Your task to perform on an android device: Open display settings Image 0: 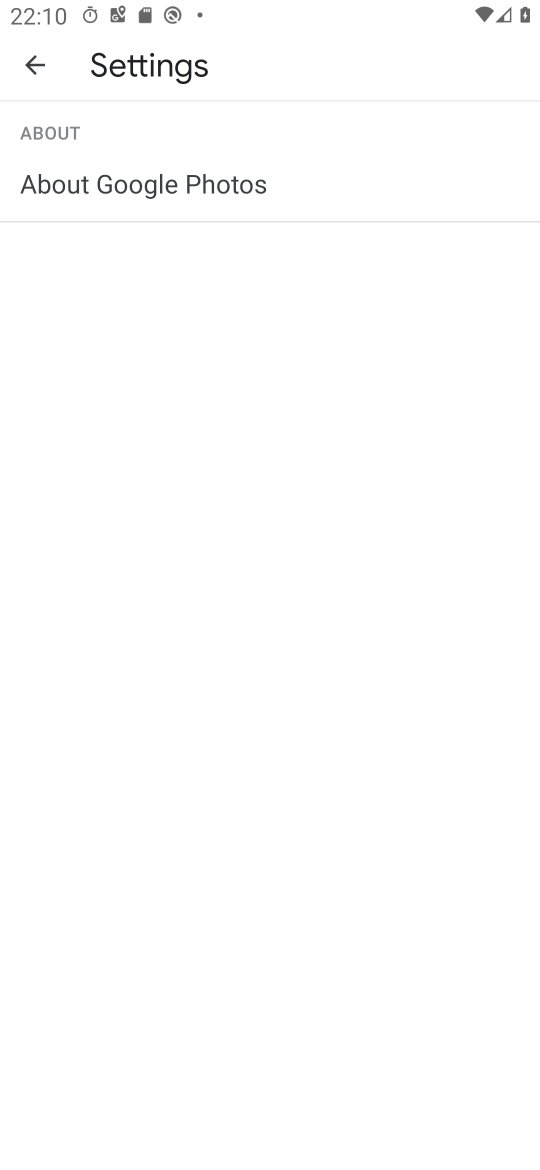
Step 0: press home button
Your task to perform on an android device: Open display settings Image 1: 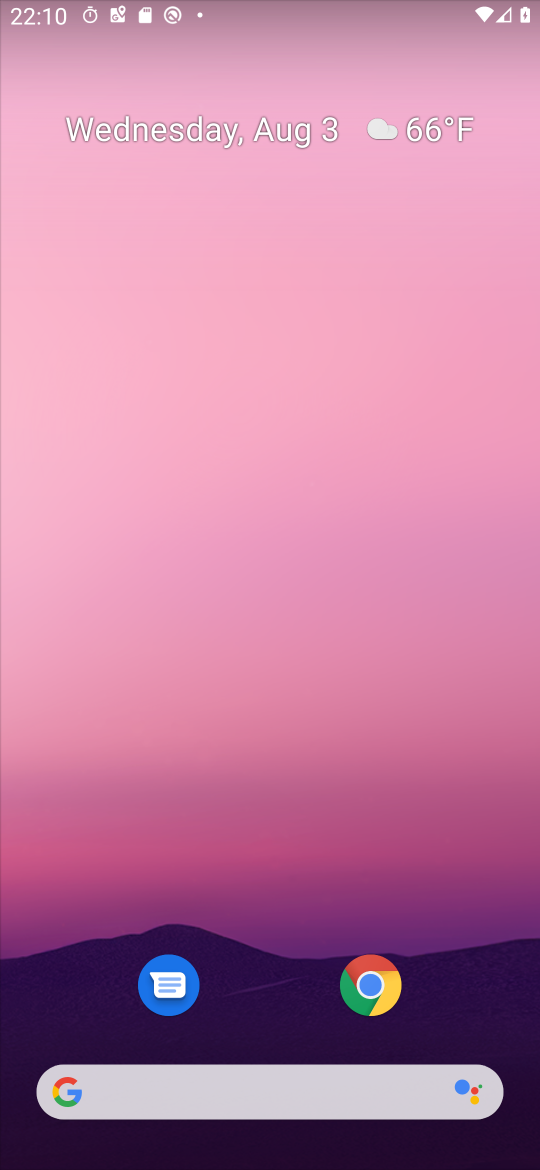
Step 1: drag from (245, 914) to (253, 182)
Your task to perform on an android device: Open display settings Image 2: 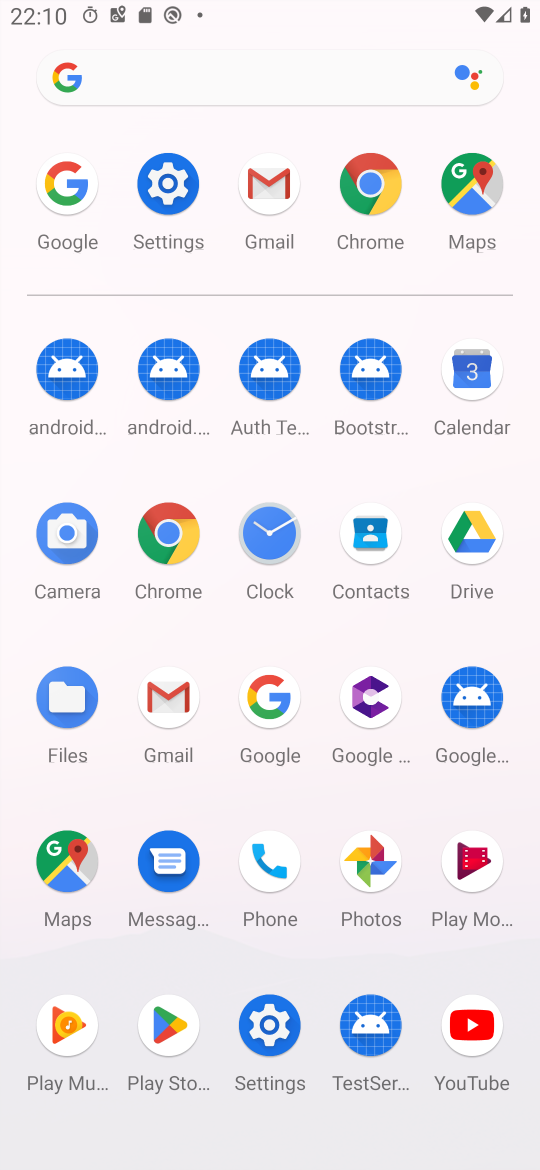
Step 2: click (170, 191)
Your task to perform on an android device: Open display settings Image 3: 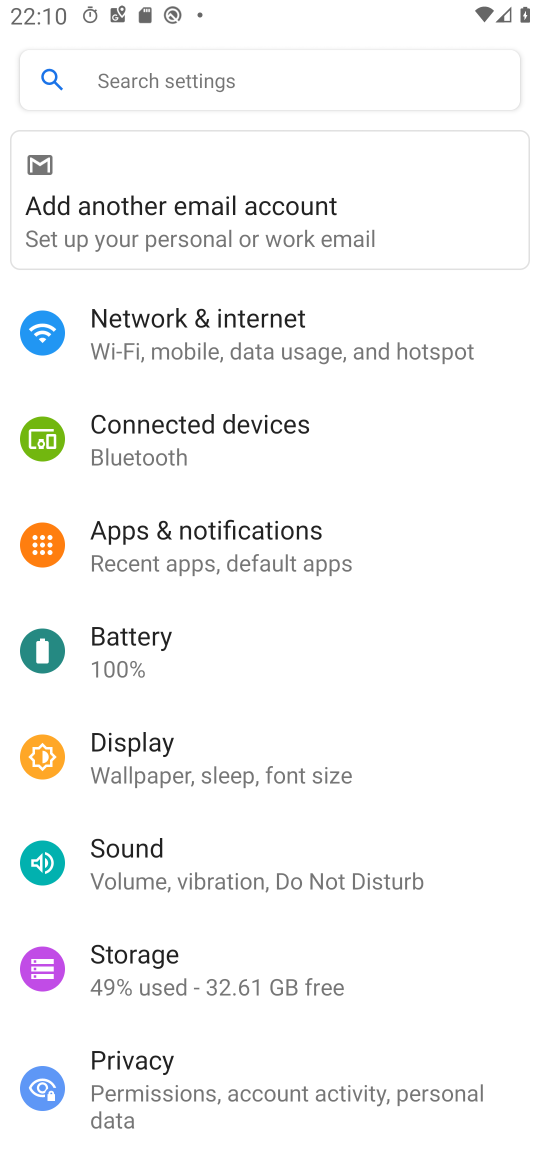
Step 3: click (202, 769)
Your task to perform on an android device: Open display settings Image 4: 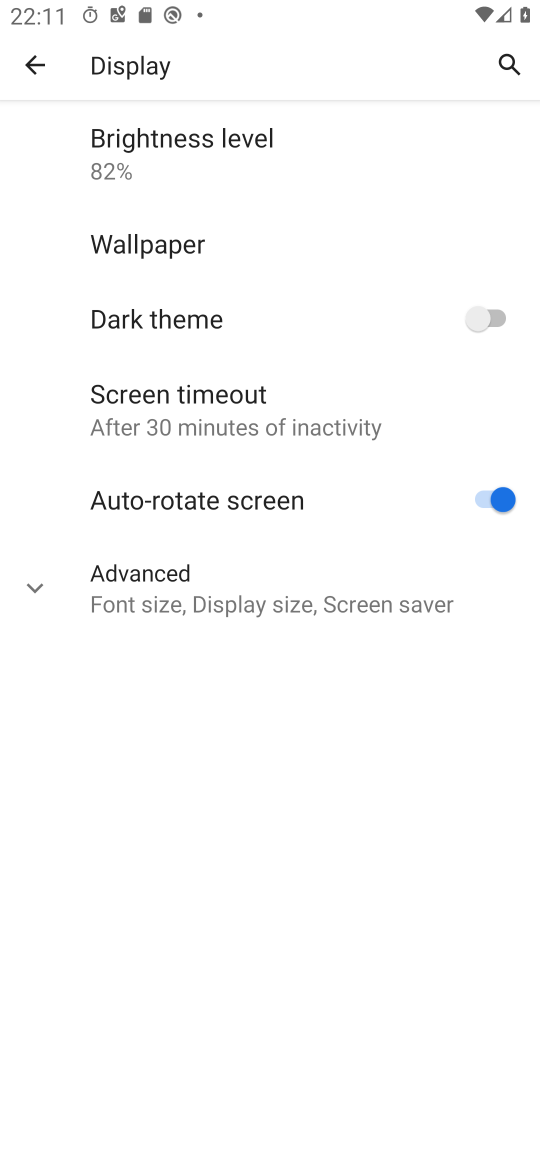
Step 4: task complete